Your task to perform on an android device: toggle priority inbox in the gmail app Image 0: 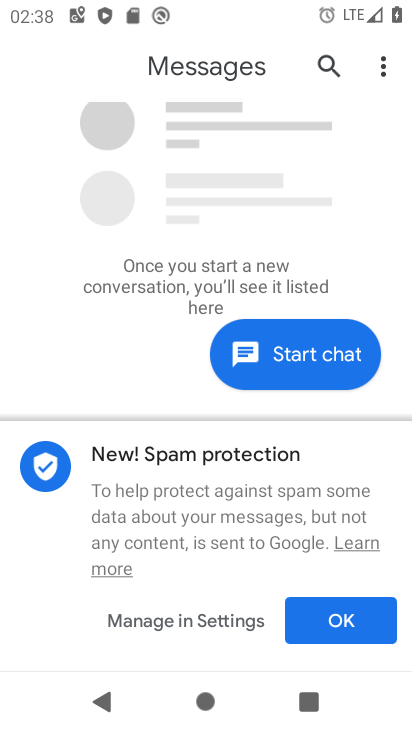
Step 0: press home button
Your task to perform on an android device: toggle priority inbox in the gmail app Image 1: 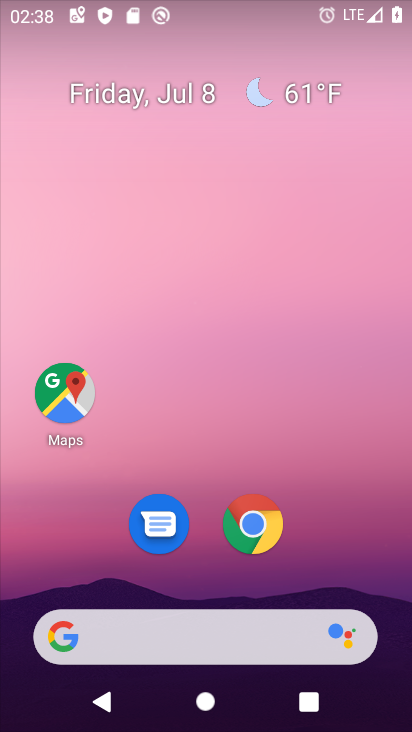
Step 1: drag from (334, 558) to (351, 44)
Your task to perform on an android device: toggle priority inbox in the gmail app Image 2: 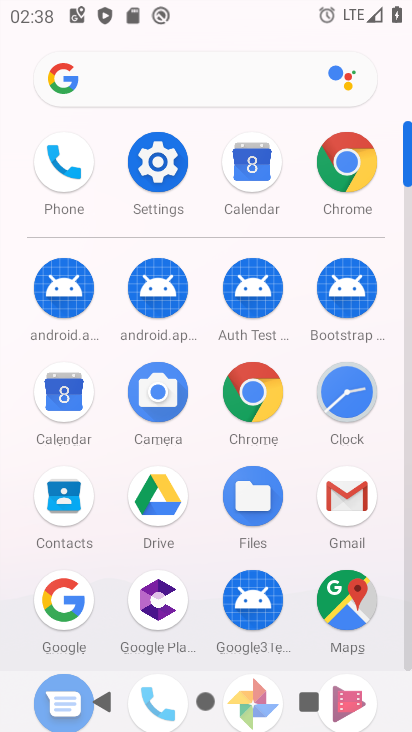
Step 2: click (349, 489)
Your task to perform on an android device: toggle priority inbox in the gmail app Image 3: 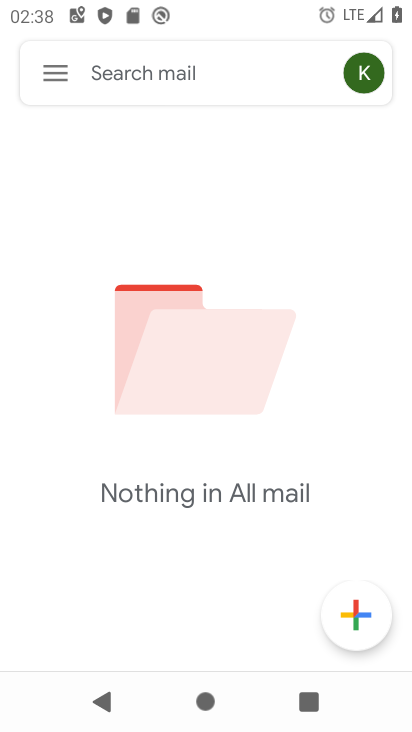
Step 3: click (55, 73)
Your task to perform on an android device: toggle priority inbox in the gmail app Image 4: 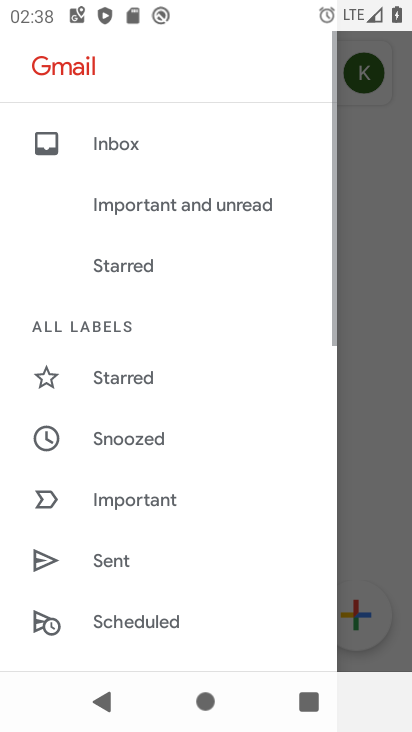
Step 4: drag from (193, 548) to (220, 136)
Your task to perform on an android device: toggle priority inbox in the gmail app Image 5: 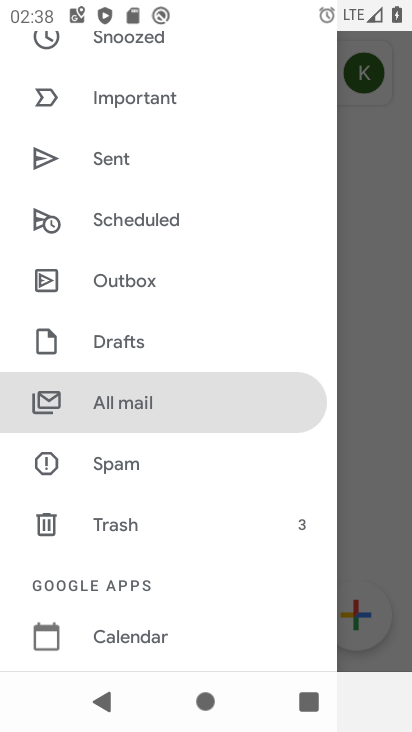
Step 5: drag from (203, 535) to (194, 99)
Your task to perform on an android device: toggle priority inbox in the gmail app Image 6: 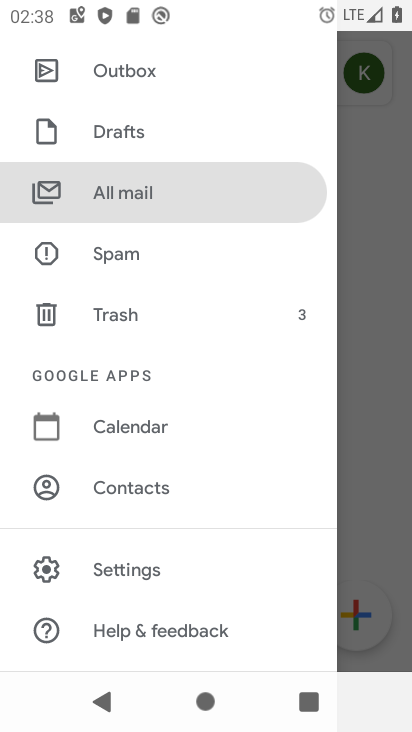
Step 6: click (108, 568)
Your task to perform on an android device: toggle priority inbox in the gmail app Image 7: 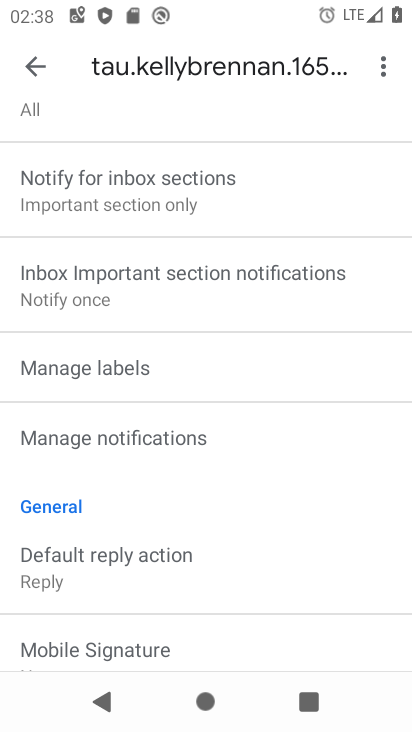
Step 7: drag from (237, 187) to (269, 696)
Your task to perform on an android device: toggle priority inbox in the gmail app Image 8: 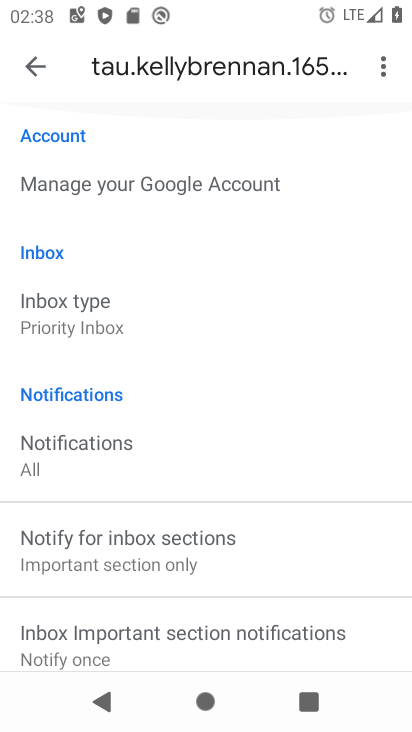
Step 8: click (103, 311)
Your task to perform on an android device: toggle priority inbox in the gmail app Image 9: 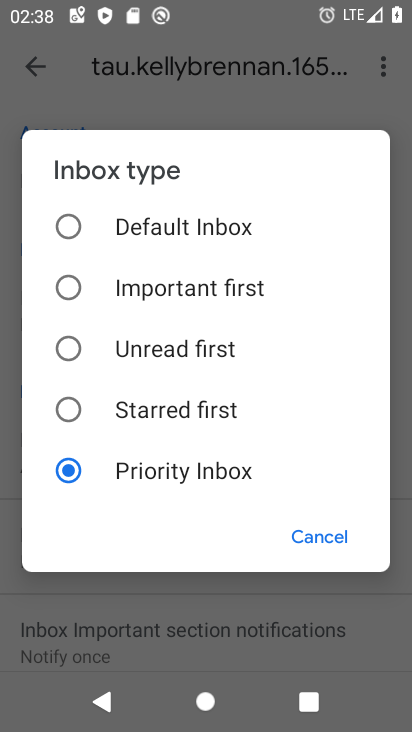
Step 9: click (67, 222)
Your task to perform on an android device: toggle priority inbox in the gmail app Image 10: 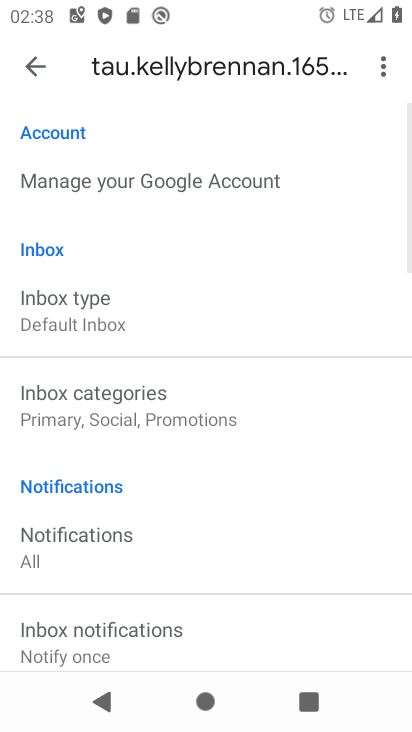
Step 10: task complete